Your task to perform on an android device: make emails show in primary in the gmail app Image 0: 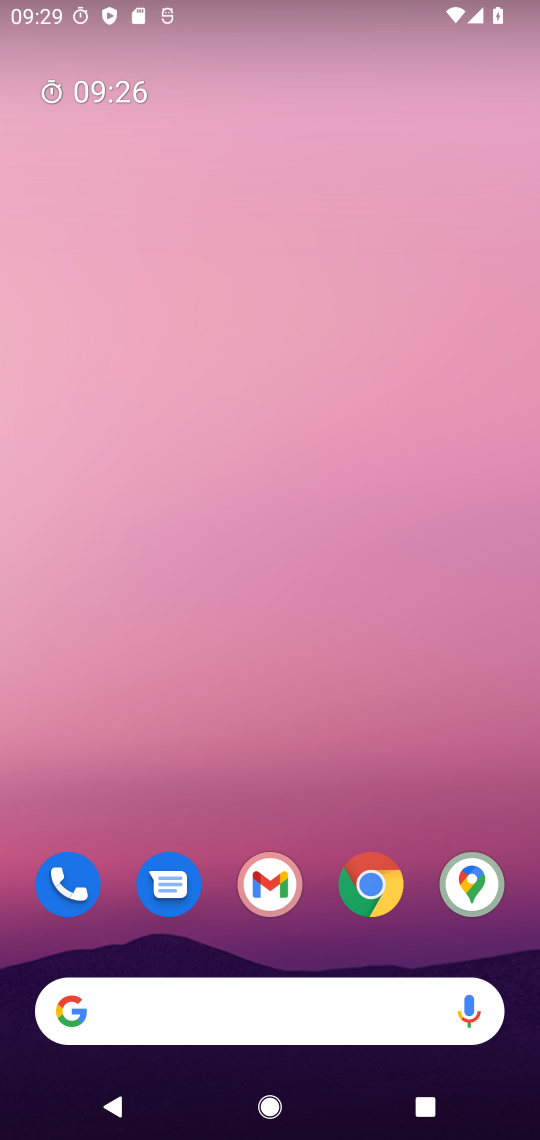
Step 0: click (251, 895)
Your task to perform on an android device: make emails show in primary in the gmail app Image 1: 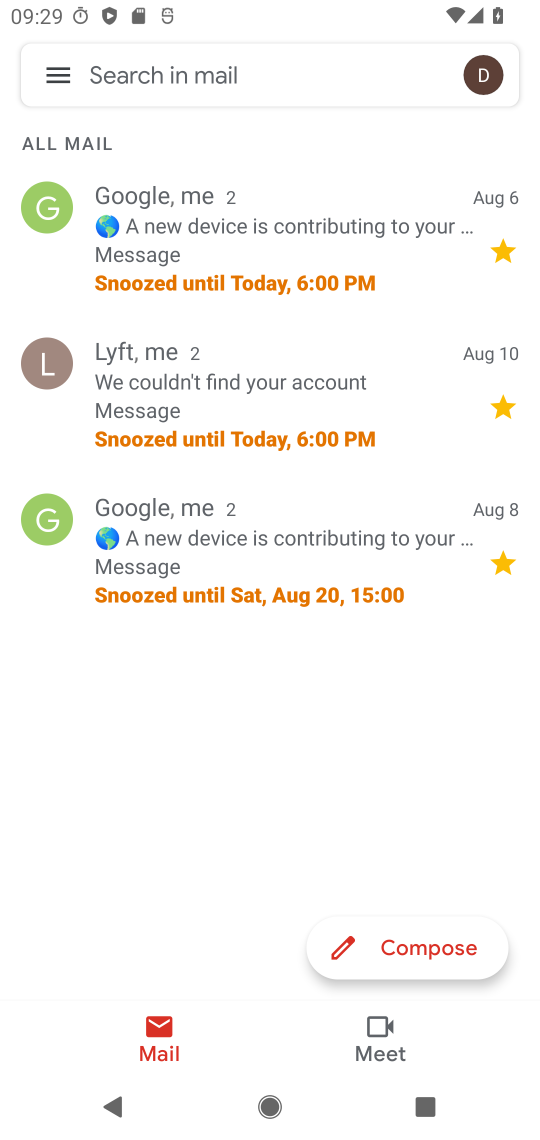
Step 1: click (47, 75)
Your task to perform on an android device: make emails show in primary in the gmail app Image 2: 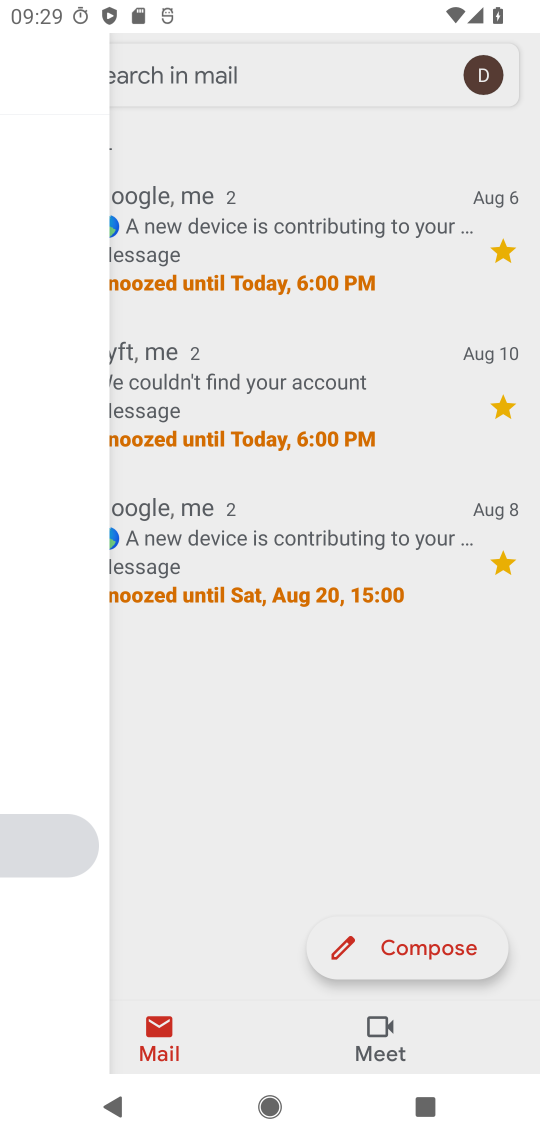
Step 2: click (55, 78)
Your task to perform on an android device: make emails show in primary in the gmail app Image 3: 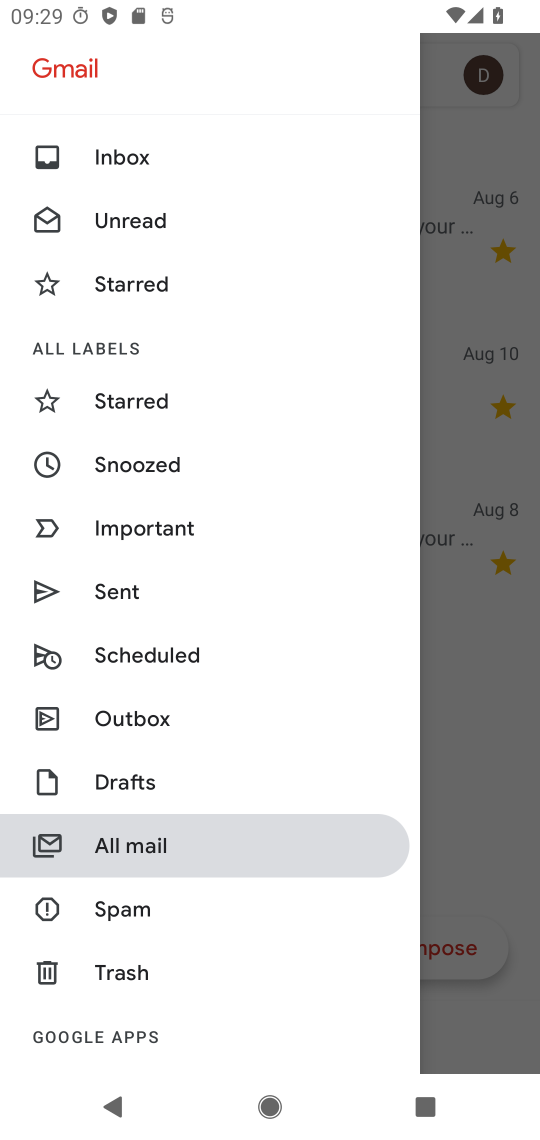
Step 3: drag from (190, 989) to (189, 386)
Your task to perform on an android device: make emails show in primary in the gmail app Image 4: 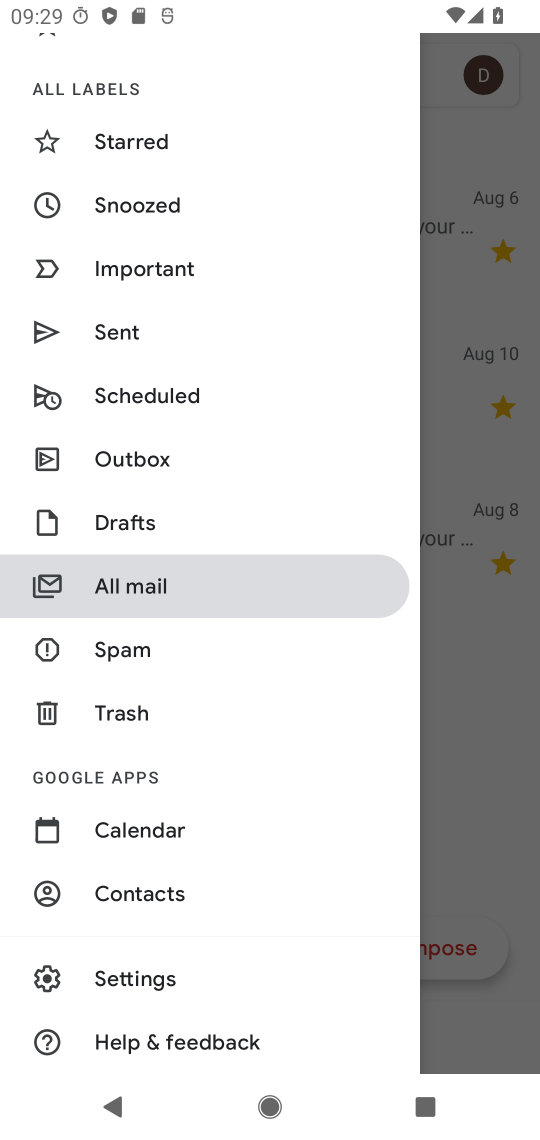
Step 4: click (145, 971)
Your task to perform on an android device: make emails show in primary in the gmail app Image 5: 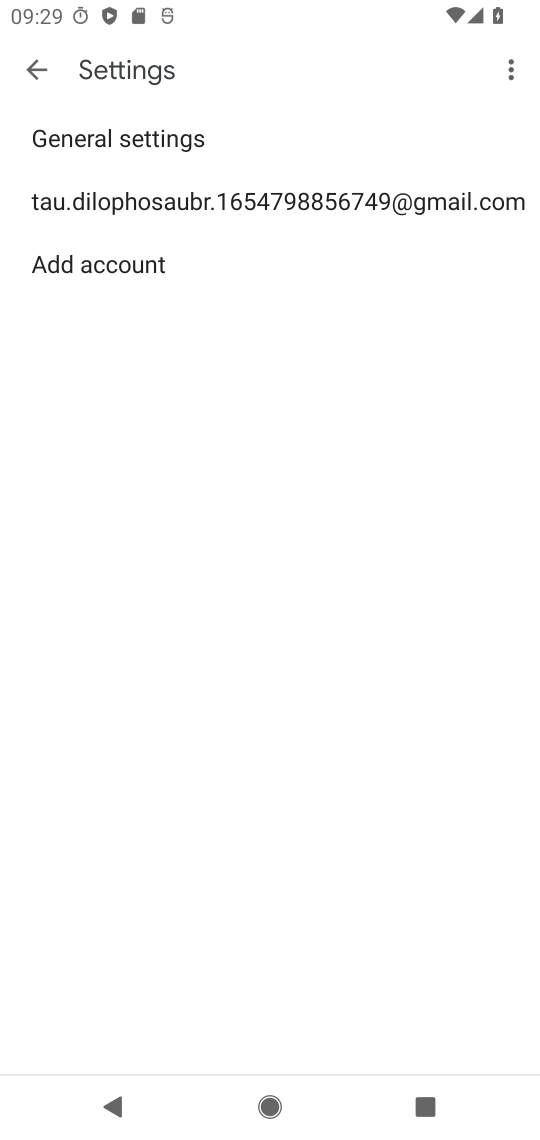
Step 5: click (92, 193)
Your task to perform on an android device: make emails show in primary in the gmail app Image 6: 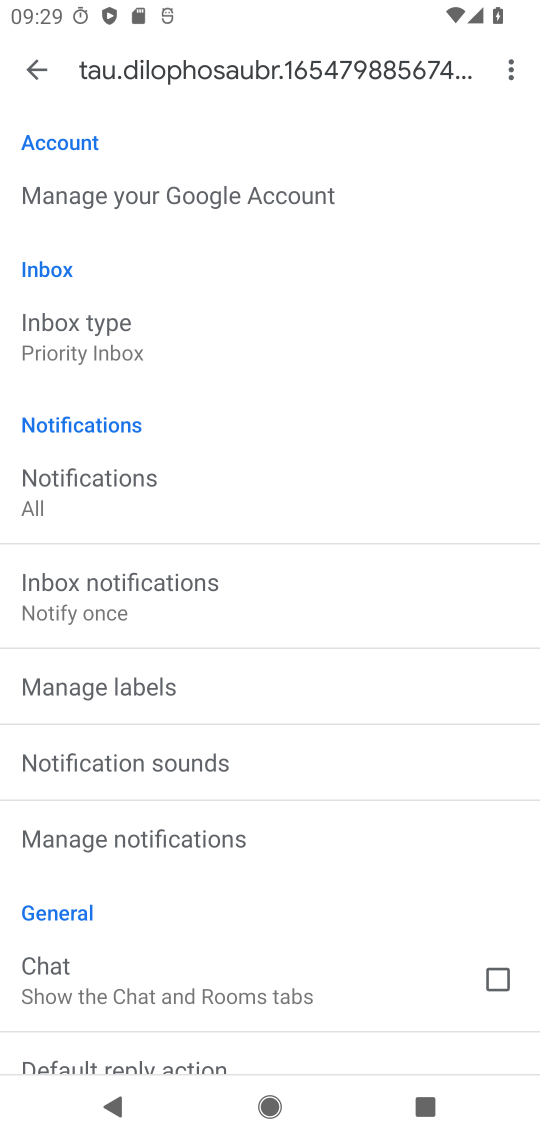
Step 6: click (187, 328)
Your task to perform on an android device: make emails show in primary in the gmail app Image 7: 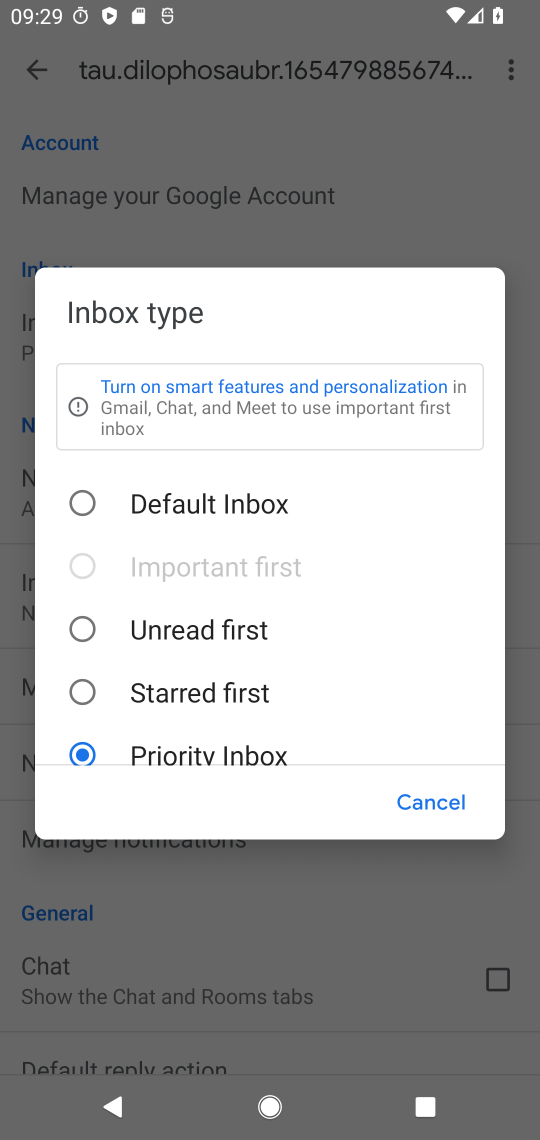
Step 7: click (420, 790)
Your task to perform on an android device: make emails show in primary in the gmail app Image 8: 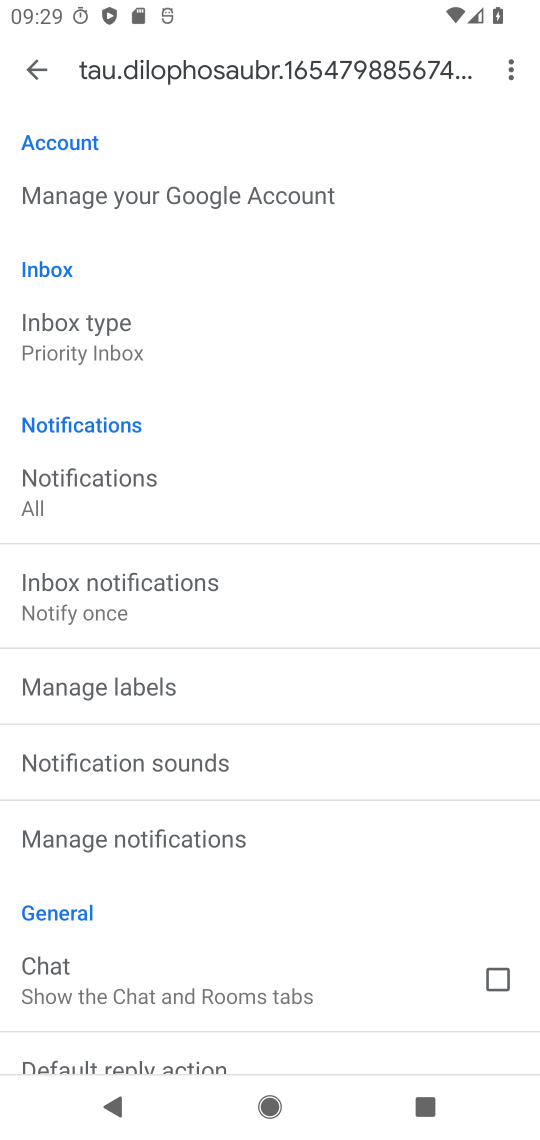
Step 8: click (119, 339)
Your task to perform on an android device: make emails show in primary in the gmail app Image 9: 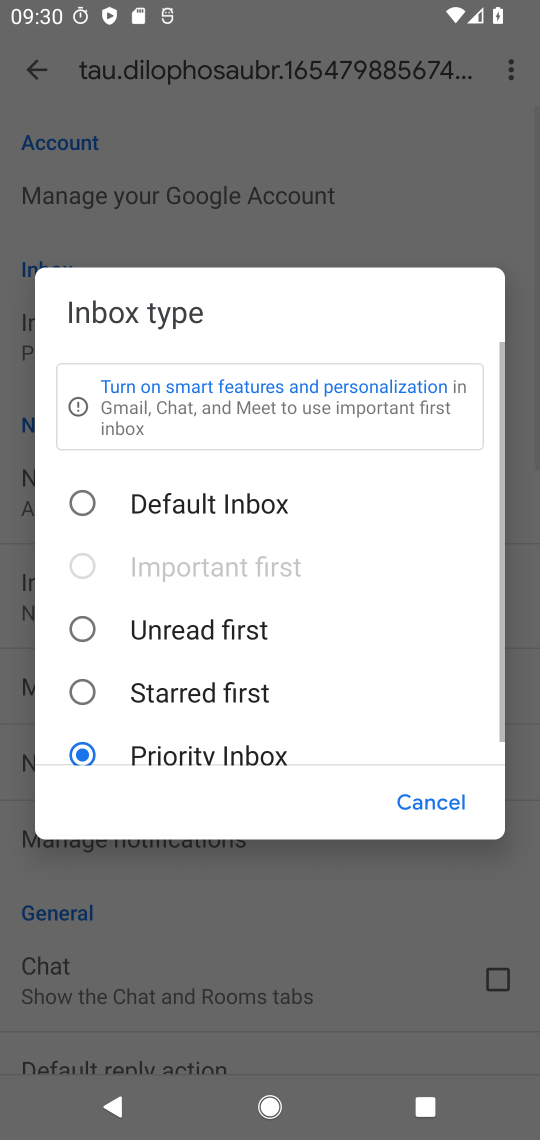
Step 9: click (167, 487)
Your task to perform on an android device: make emails show in primary in the gmail app Image 10: 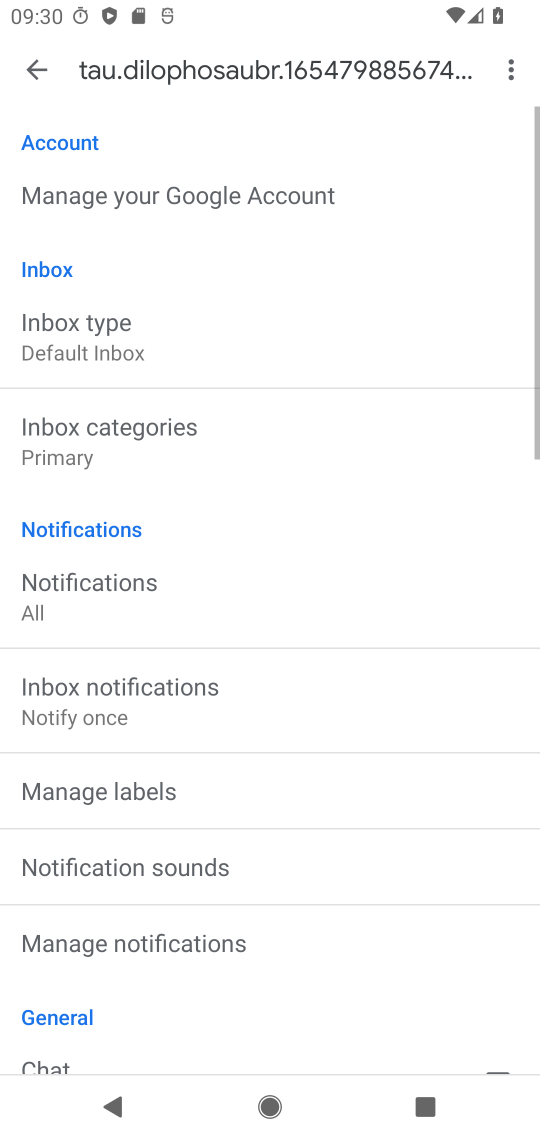
Step 10: task complete